Your task to perform on an android device: Open the calendar and show me this week's events? Image 0: 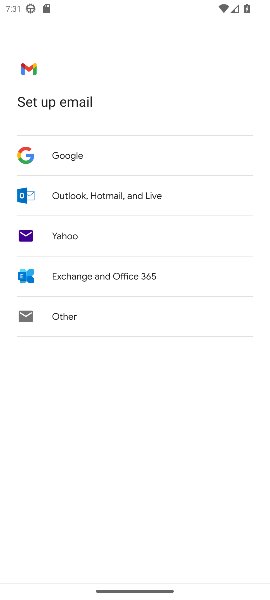
Step 0: press home button
Your task to perform on an android device: Open the calendar and show me this week's events? Image 1: 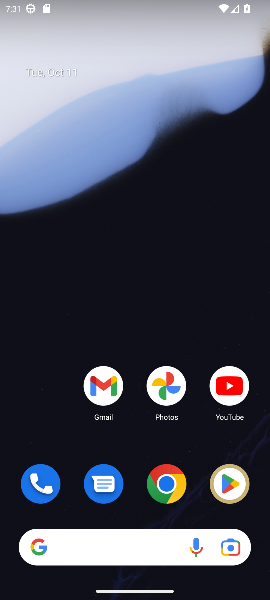
Step 1: drag from (117, 539) to (118, 120)
Your task to perform on an android device: Open the calendar and show me this week's events? Image 2: 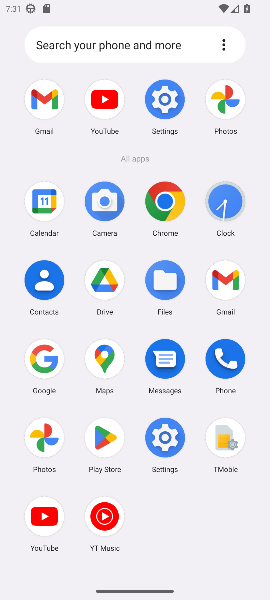
Step 2: click (43, 204)
Your task to perform on an android device: Open the calendar and show me this week's events? Image 3: 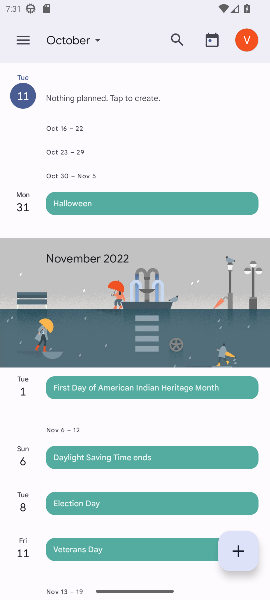
Step 3: click (95, 40)
Your task to perform on an android device: Open the calendar and show me this week's events? Image 4: 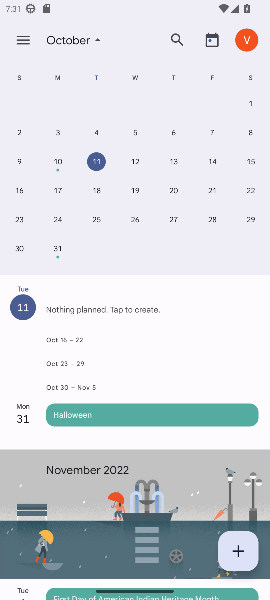
Step 4: click (56, 164)
Your task to perform on an android device: Open the calendar and show me this week's events? Image 5: 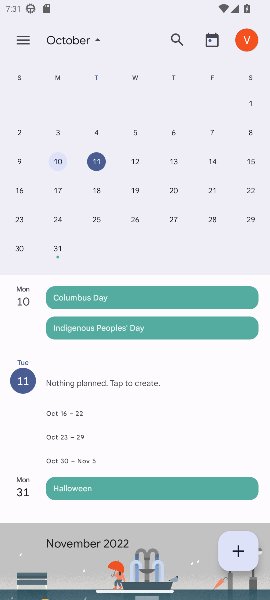
Step 5: click (23, 48)
Your task to perform on an android device: Open the calendar and show me this week's events? Image 6: 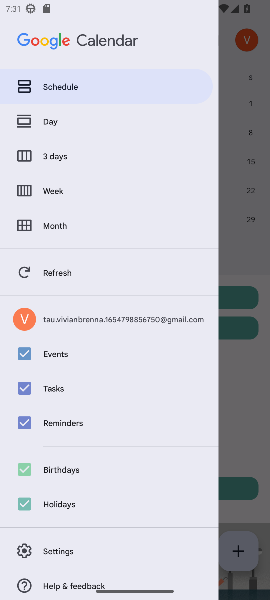
Step 6: click (58, 189)
Your task to perform on an android device: Open the calendar and show me this week's events? Image 7: 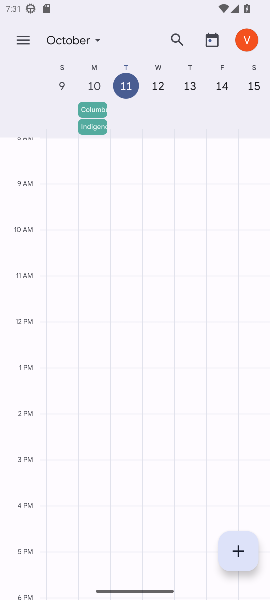
Step 7: task complete